Your task to perform on an android device: Show me recent news Image 0: 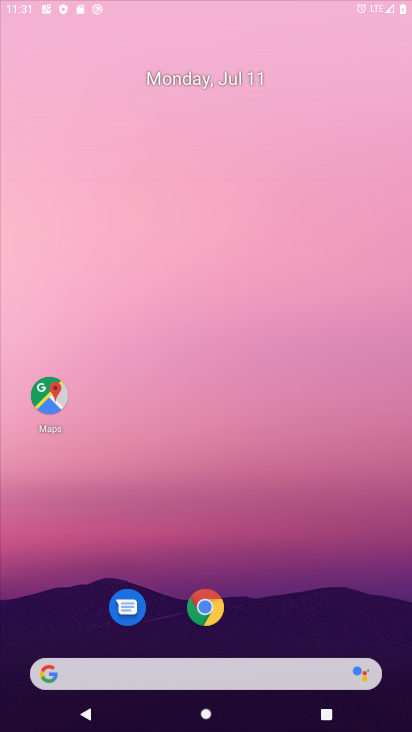
Step 0: drag from (169, 97) to (216, 50)
Your task to perform on an android device: Show me recent news Image 1: 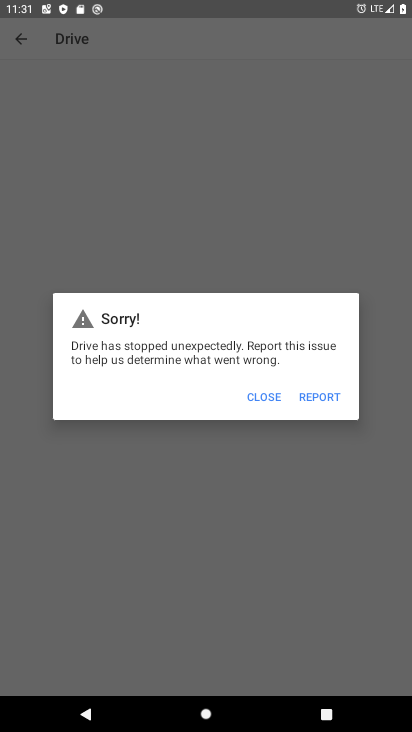
Step 1: press home button
Your task to perform on an android device: Show me recent news Image 2: 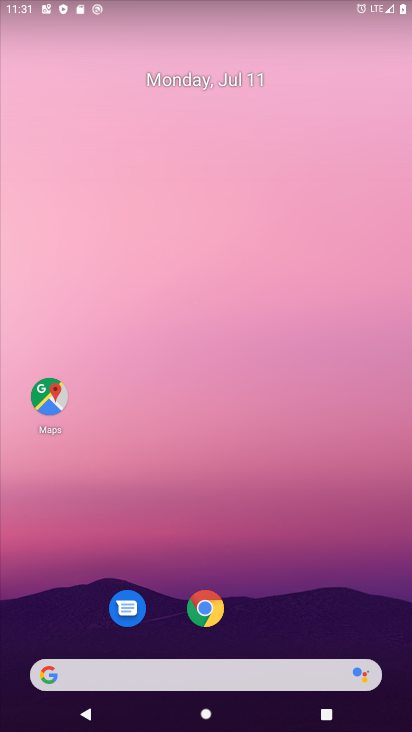
Step 2: click (82, 676)
Your task to perform on an android device: Show me recent news Image 3: 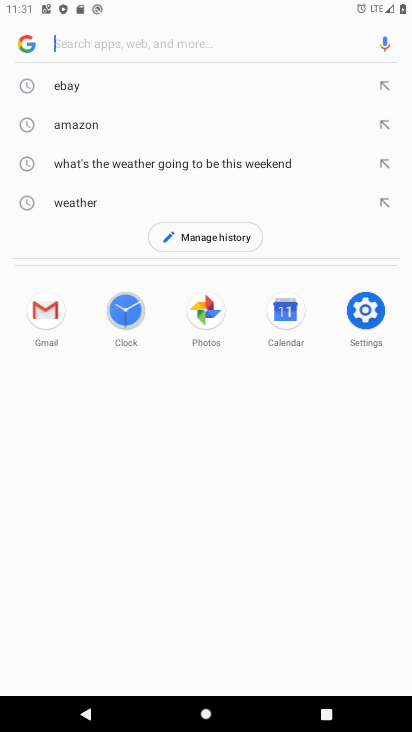
Step 3: type "Show me recent news"
Your task to perform on an android device: Show me recent news Image 4: 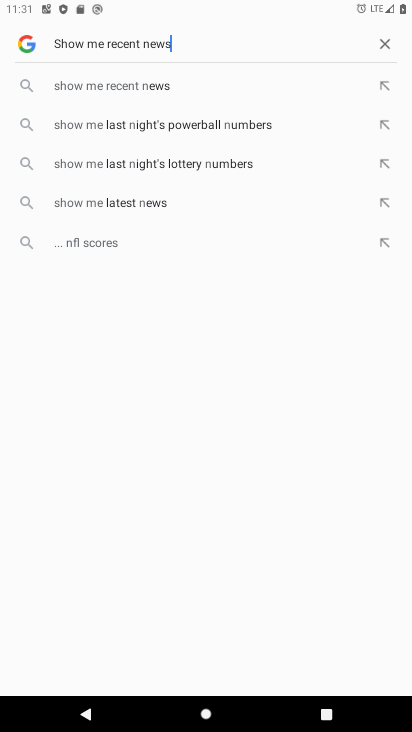
Step 4: type ""
Your task to perform on an android device: Show me recent news Image 5: 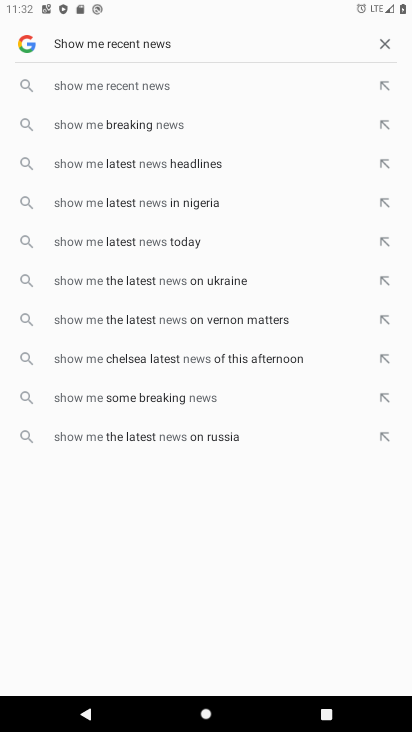
Step 5: click (112, 93)
Your task to perform on an android device: Show me recent news Image 6: 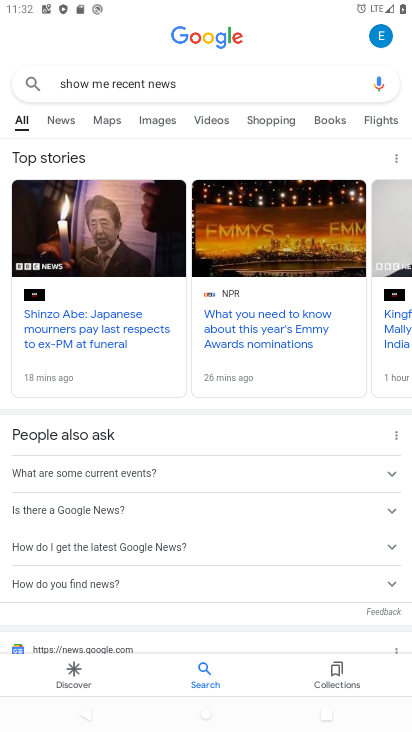
Step 6: task complete